Your task to perform on an android device: uninstall "Microsoft Outlook" Image 0: 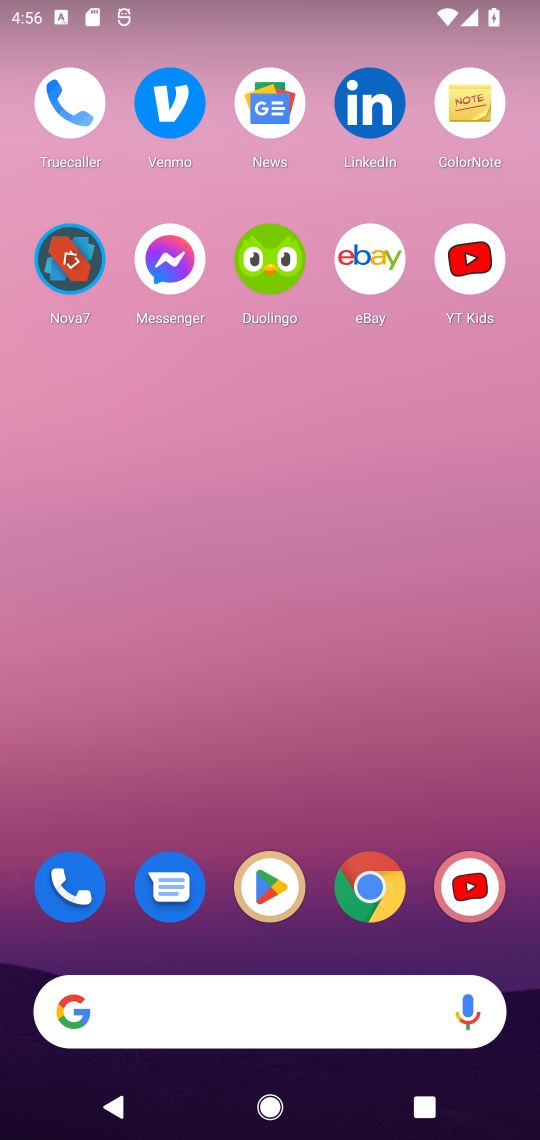
Step 0: click (254, 894)
Your task to perform on an android device: uninstall "Microsoft Outlook" Image 1: 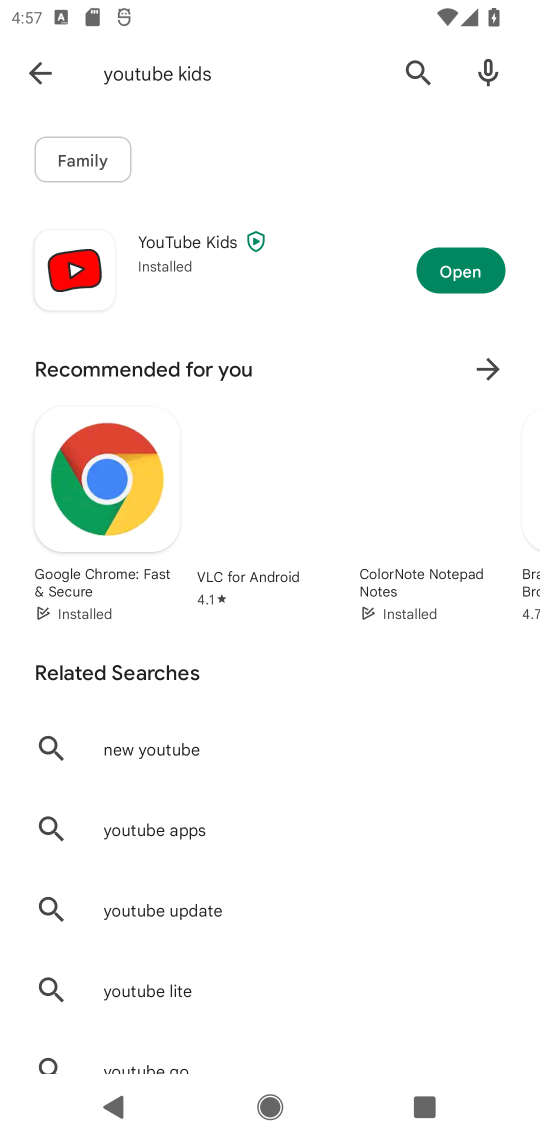
Step 1: click (32, 73)
Your task to perform on an android device: uninstall "Microsoft Outlook" Image 2: 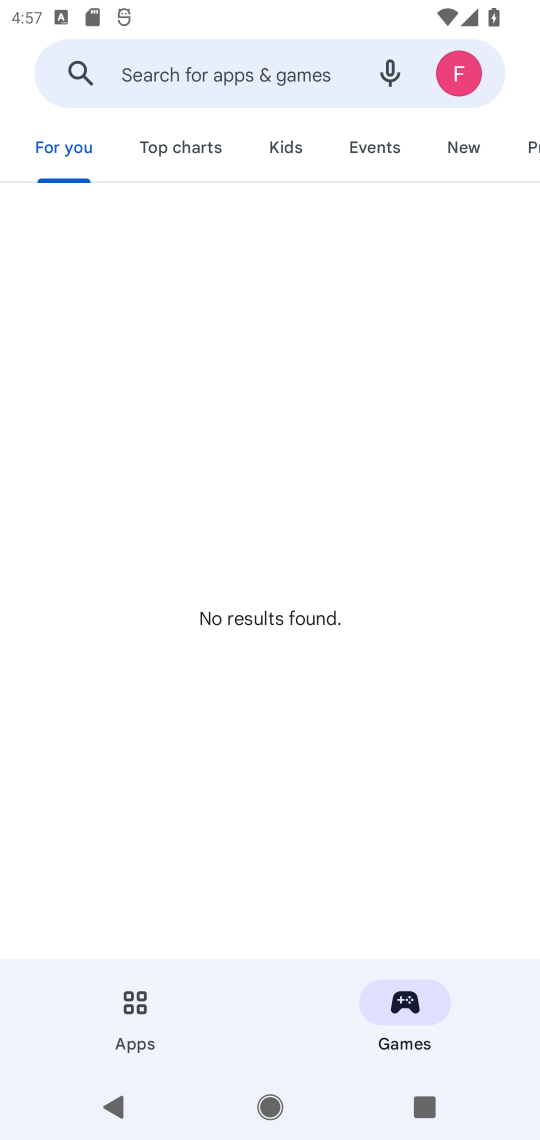
Step 2: click (215, 72)
Your task to perform on an android device: uninstall "Microsoft Outlook" Image 3: 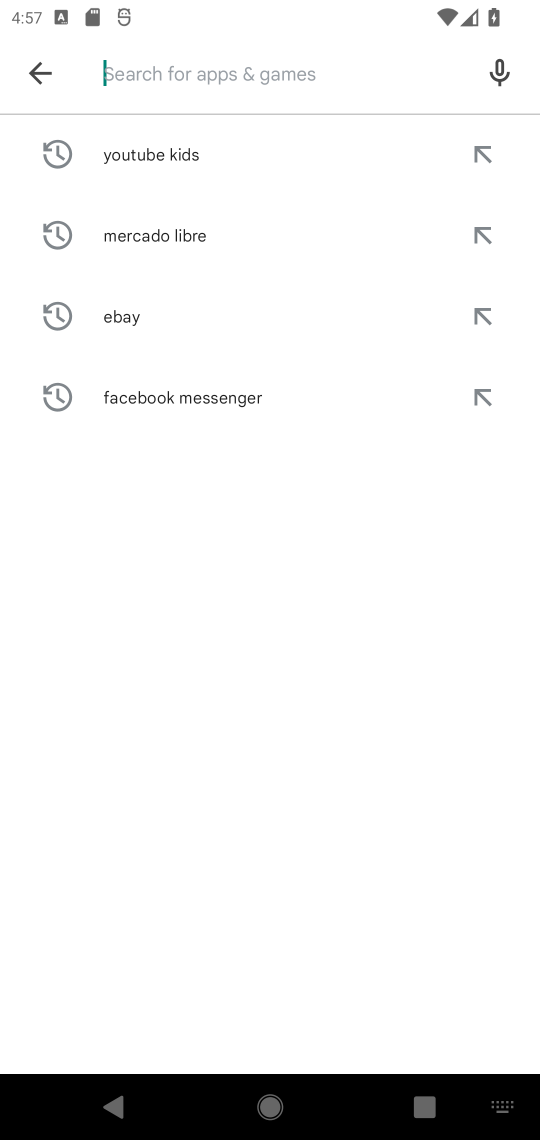
Step 3: type "Microsoft Outlook""
Your task to perform on an android device: uninstall "Microsoft Outlook" Image 4: 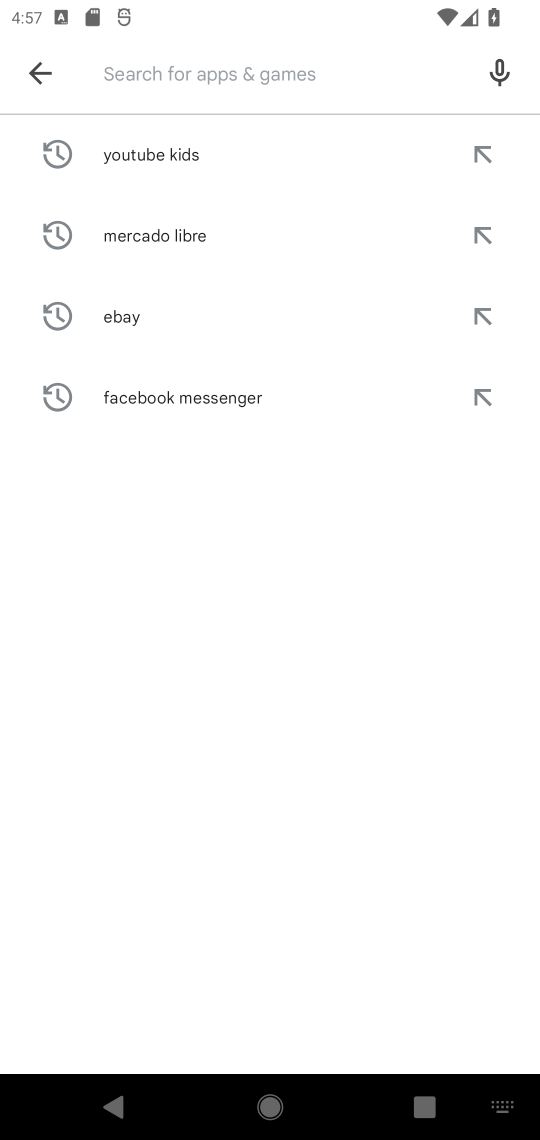
Step 4: type "Microsoft Outlook"
Your task to perform on an android device: uninstall "Microsoft Outlook" Image 5: 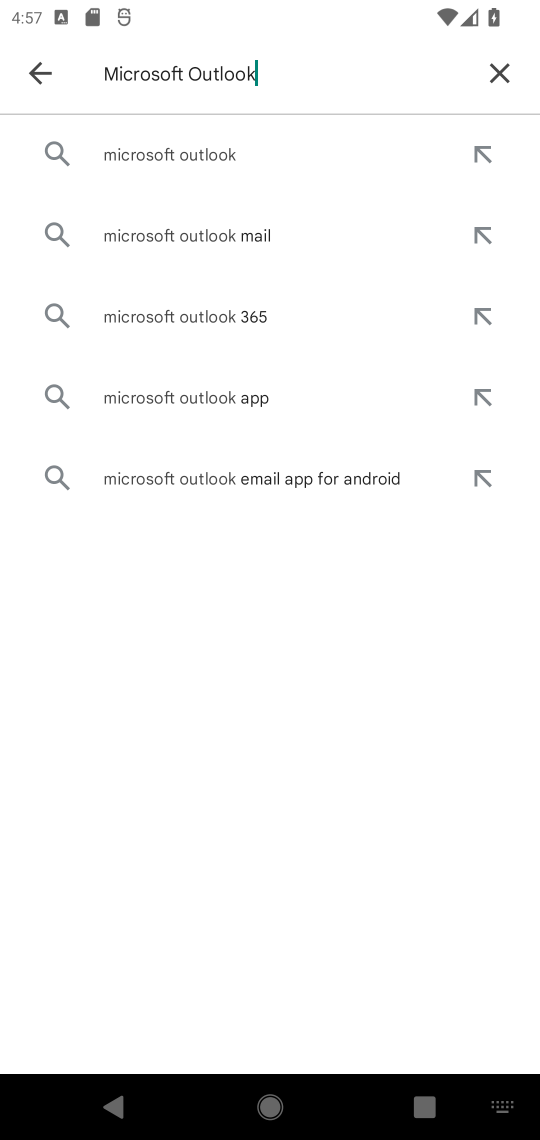
Step 5: click (209, 166)
Your task to perform on an android device: uninstall "Microsoft Outlook" Image 6: 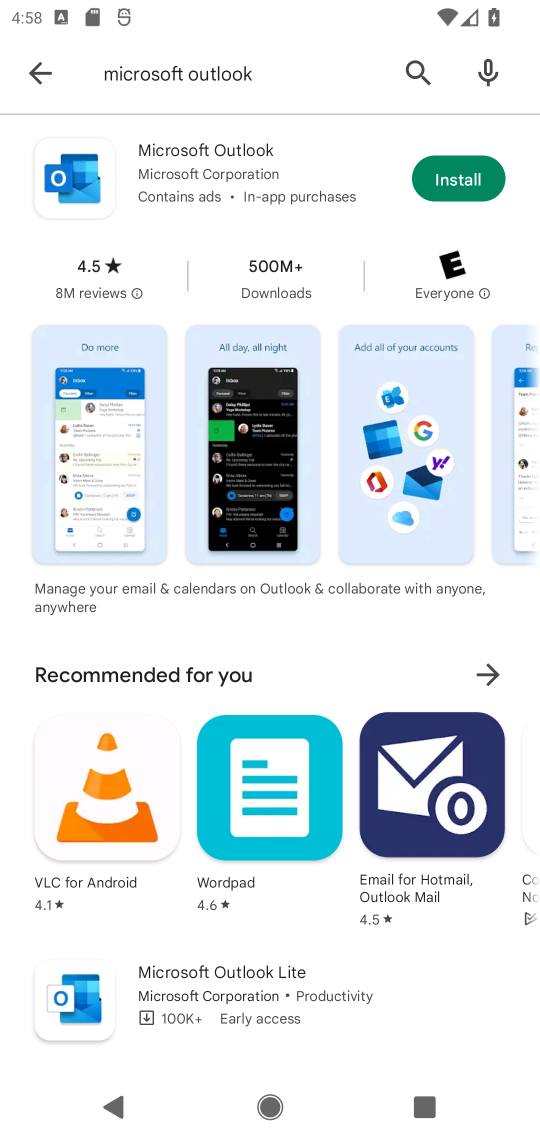
Step 6: task complete